Your task to perform on an android device: What is the news today? Image 0: 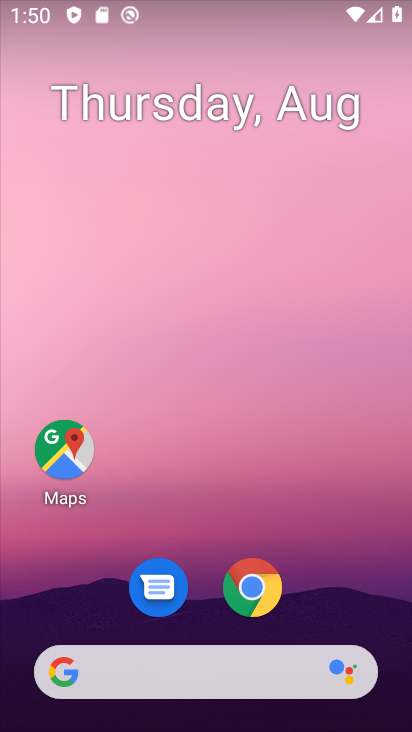
Step 0: drag from (7, 310) to (378, 370)
Your task to perform on an android device: What is the news today? Image 1: 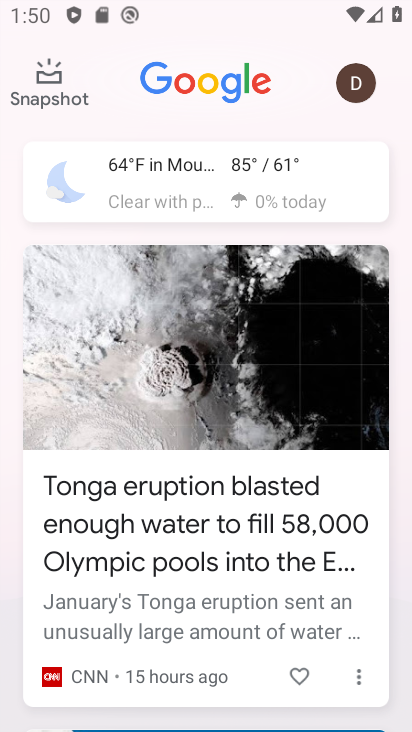
Step 1: task complete